Your task to perform on an android device: Search for Italian restaurants on Maps Image 0: 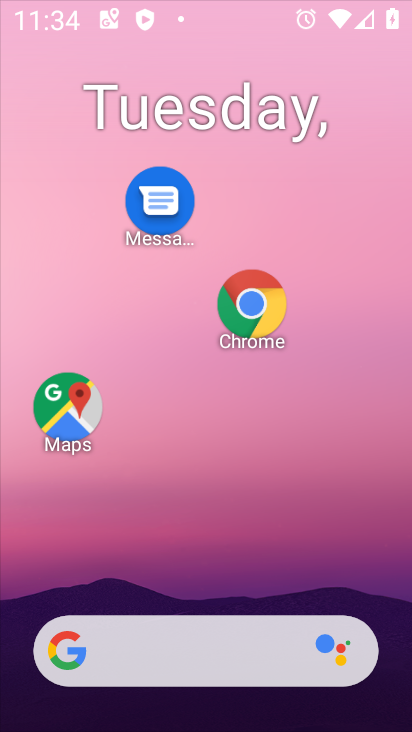
Step 0: click (325, 250)
Your task to perform on an android device: Search for Italian restaurants on Maps Image 1: 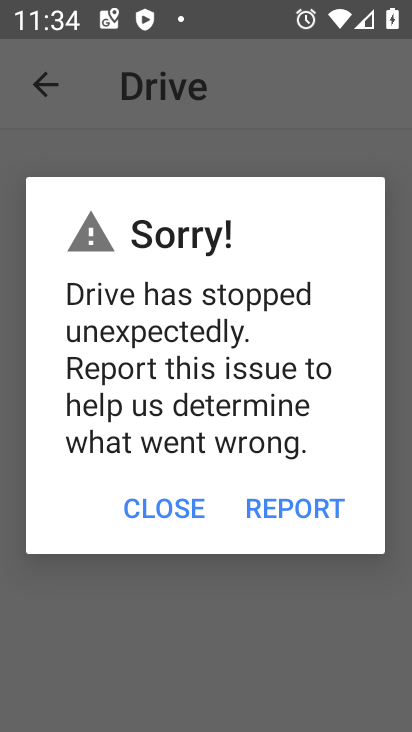
Step 1: drag from (301, 429) to (315, 167)
Your task to perform on an android device: Search for Italian restaurants on Maps Image 2: 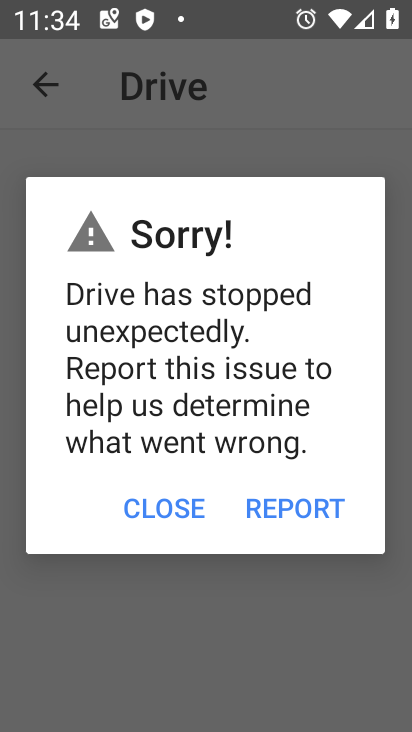
Step 2: press back button
Your task to perform on an android device: Search for Italian restaurants on Maps Image 3: 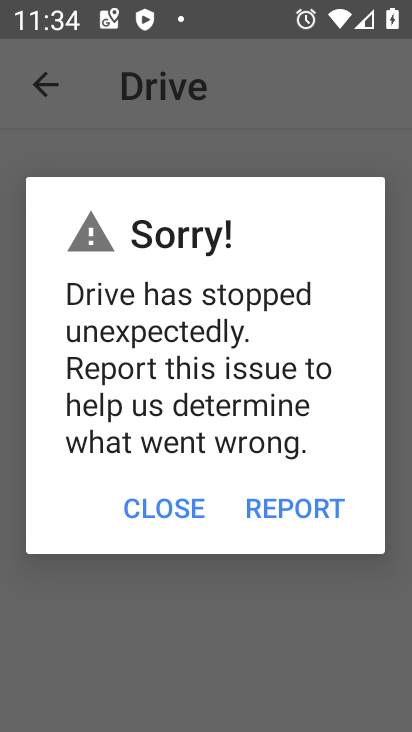
Step 3: press back button
Your task to perform on an android device: Search for Italian restaurants on Maps Image 4: 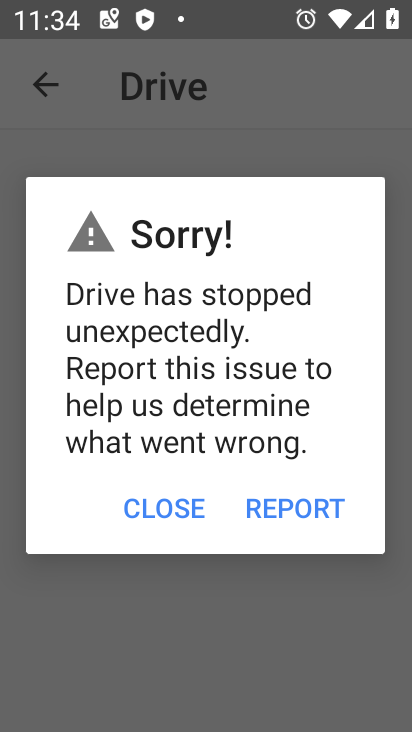
Step 4: press home button
Your task to perform on an android device: Search for Italian restaurants on Maps Image 5: 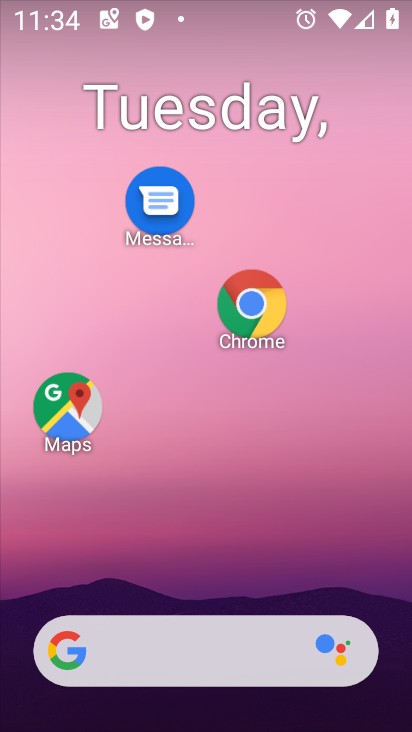
Step 5: drag from (282, 390) to (329, 170)
Your task to perform on an android device: Search for Italian restaurants on Maps Image 6: 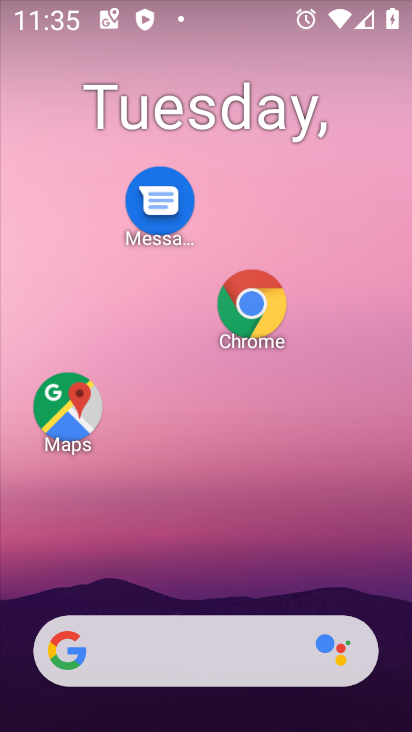
Step 6: drag from (338, 383) to (372, 225)
Your task to perform on an android device: Search for Italian restaurants on Maps Image 7: 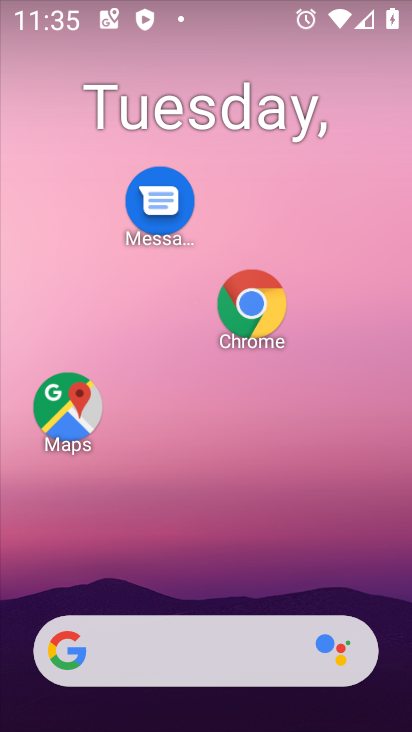
Step 7: drag from (270, 566) to (369, 108)
Your task to perform on an android device: Search for Italian restaurants on Maps Image 8: 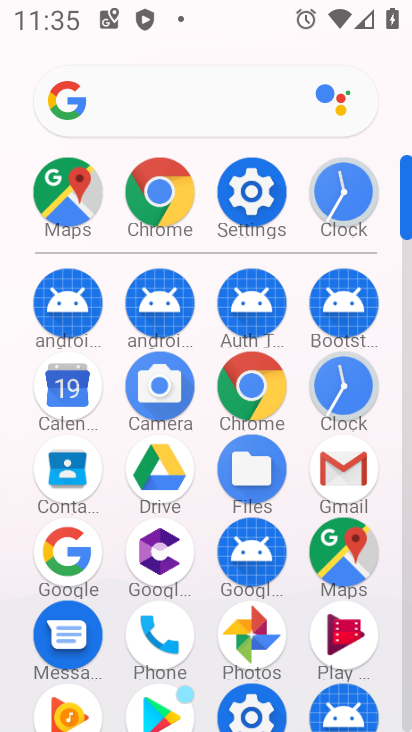
Step 8: click (336, 545)
Your task to perform on an android device: Search for Italian restaurants on Maps Image 9: 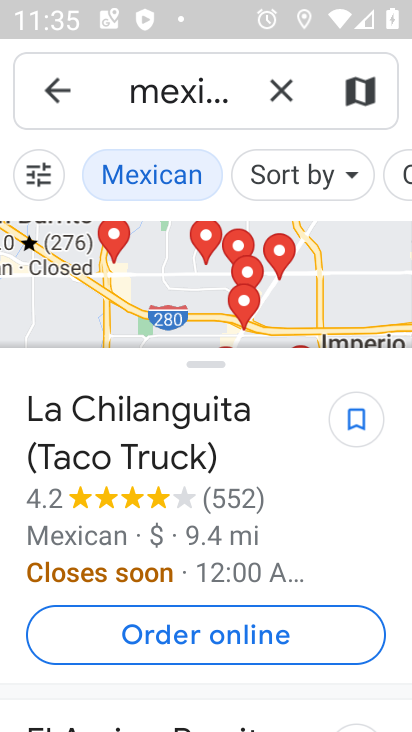
Step 9: click (284, 91)
Your task to perform on an android device: Search for Italian restaurants on Maps Image 10: 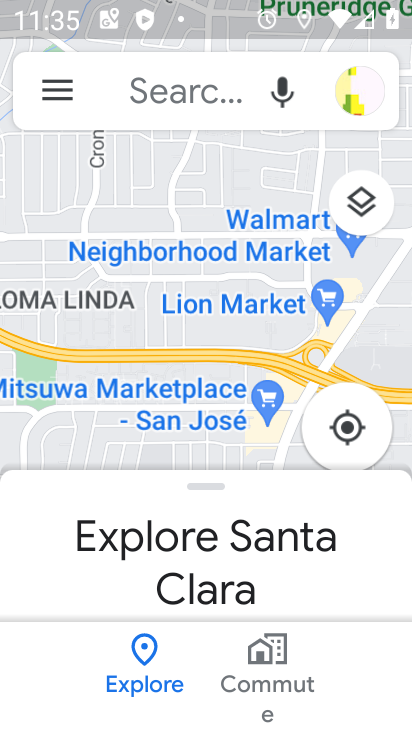
Step 10: click (169, 92)
Your task to perform on an android device: Search for Italian restaurants on Maps Image 11: 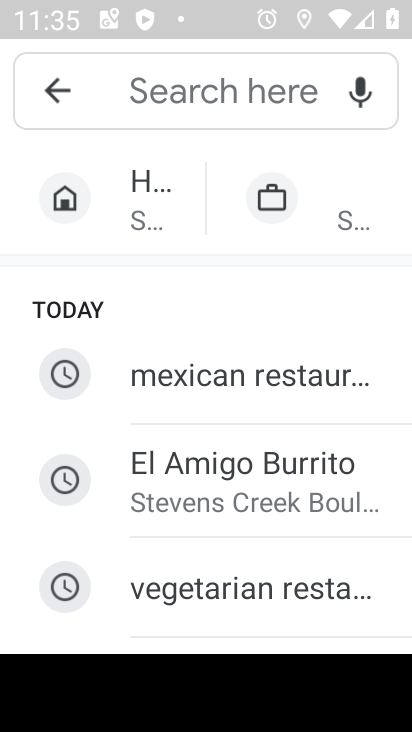
Step 11: click (212, 102)
Your task to perform on an android device: Search for Italian restaurants on Maps Image 12: 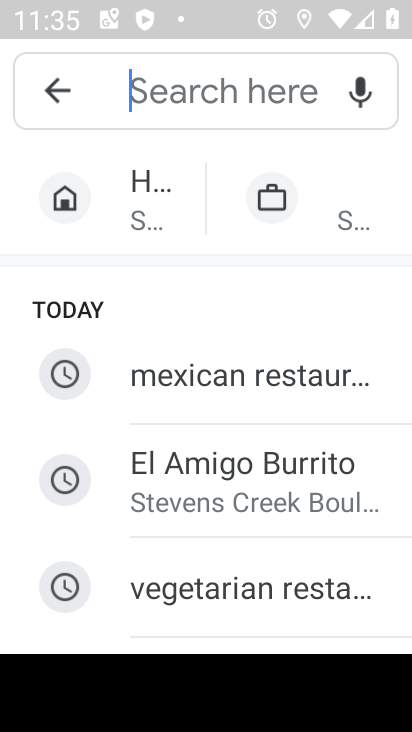
Step 12: type " Italian restaurants"
Your task to perform on an android device: Search for Italian restaurants on Maps Image 13: 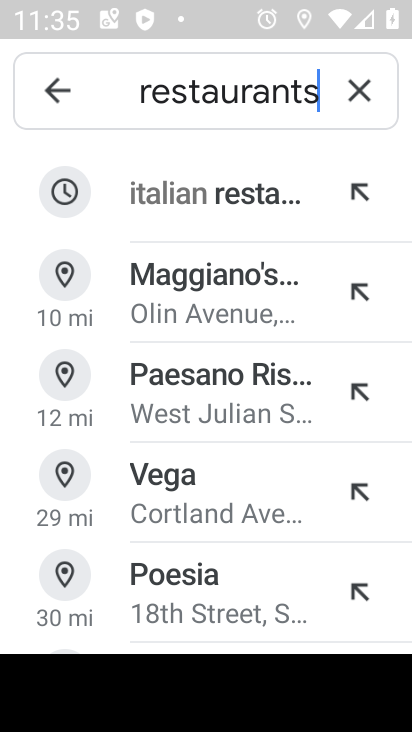
Step 13: click (232, 192)
Your task to perform on an android device: Search for Italian restaurants on Maps Image 14: 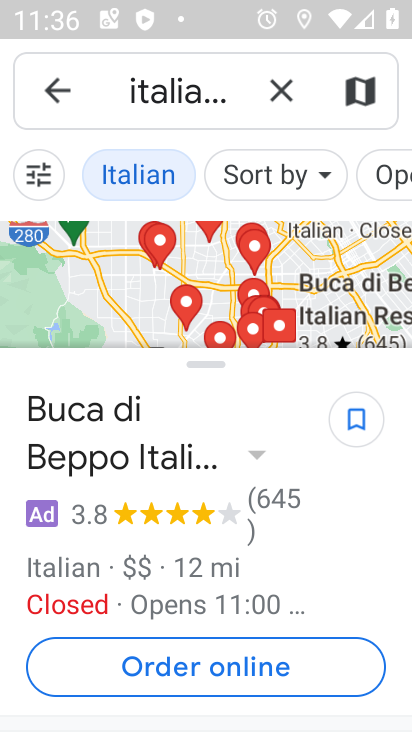
Step 14: task complete